Your task to perform on an android device: turn on sleep mode Image 0: 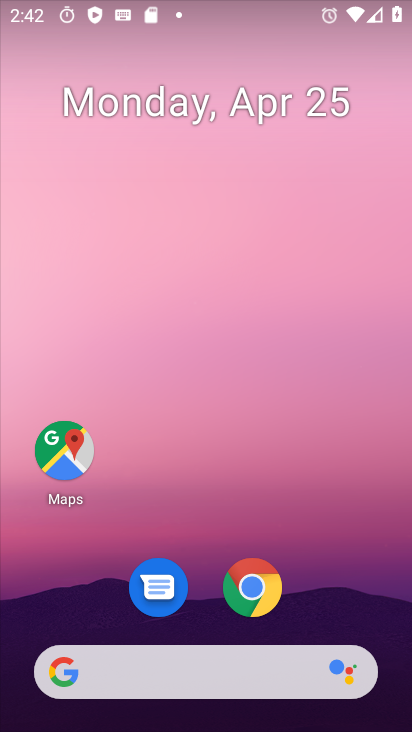
Step 0: drag from (333, 559) to (306, 117)
Your task to perform on an android device: turn on sleep mode Image 1: 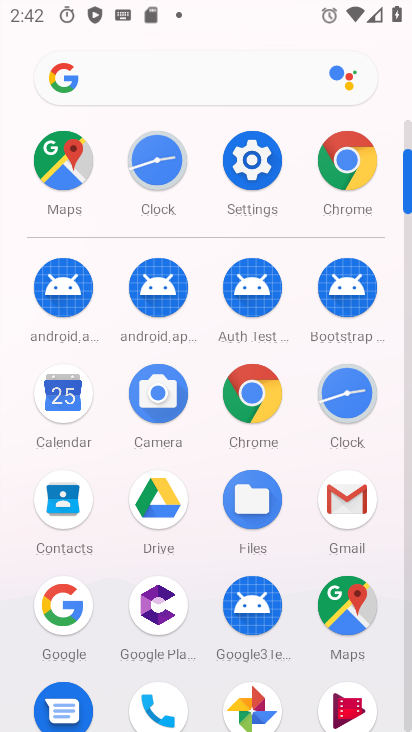
Step 1: click (262, 162)
Your task to perform on an android device: turn on sleep mode Image 2: 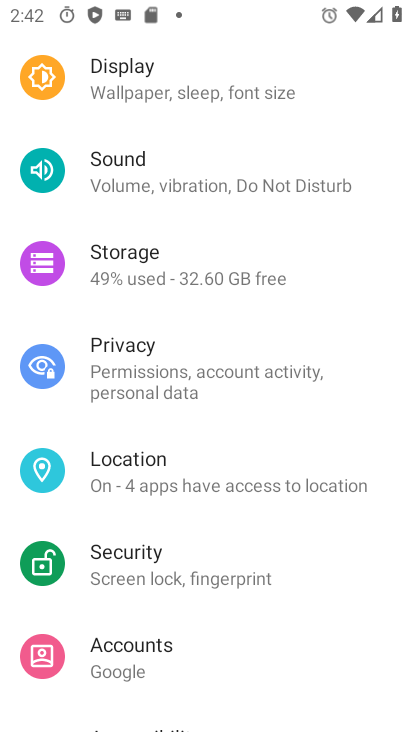
Step 2: drag from (191, 155) to (186, 535)
Your task to perform on an android device: turn on sleep mode Image 3: 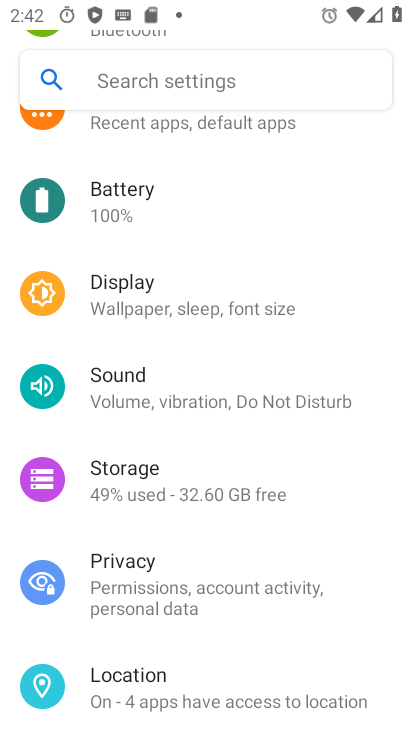
Step 3: drag from (219, 214) to (197, 618)
Your task to perform on an android device: turn on sleep mode Image 4: 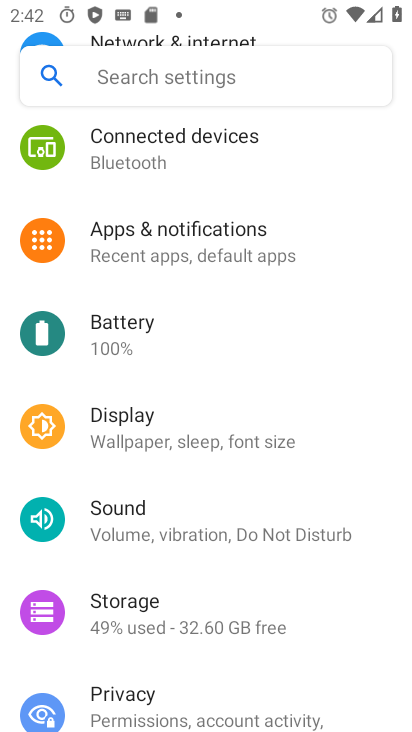
Step 4: click (178, 445)
Your task to perform on an android device: turn on sleep mode Image 5: 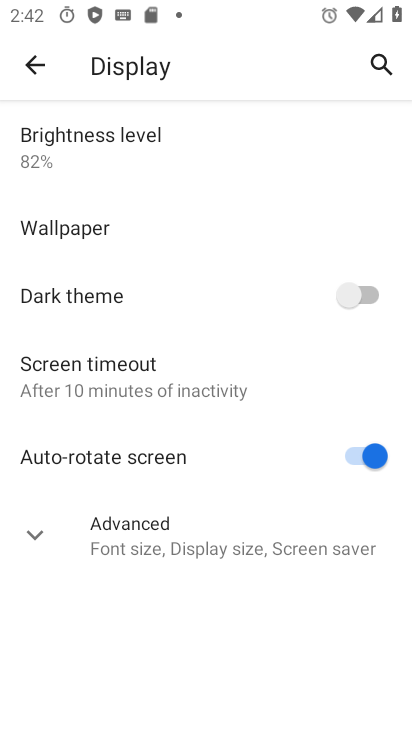
Step 5: click (107, 357)
Your task to perform on an android device: turn on sleep mode Image 6: 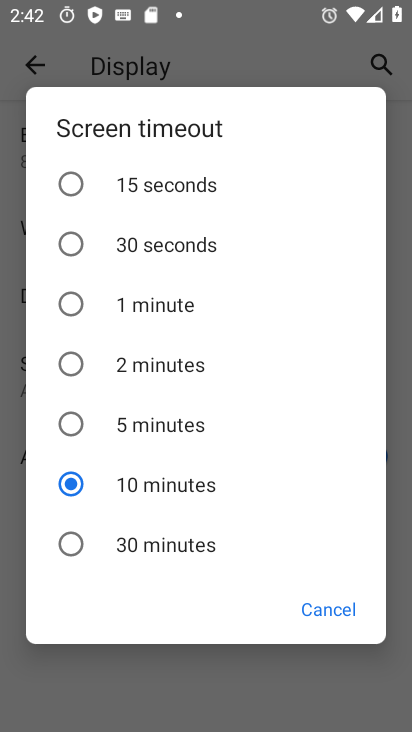
Step 6: task complete